Your task to perform on an android device: Empty the shopping cart on amazon. Add "usb-c to usb-a" to the cart on amazon, then select checkout. Image 0: 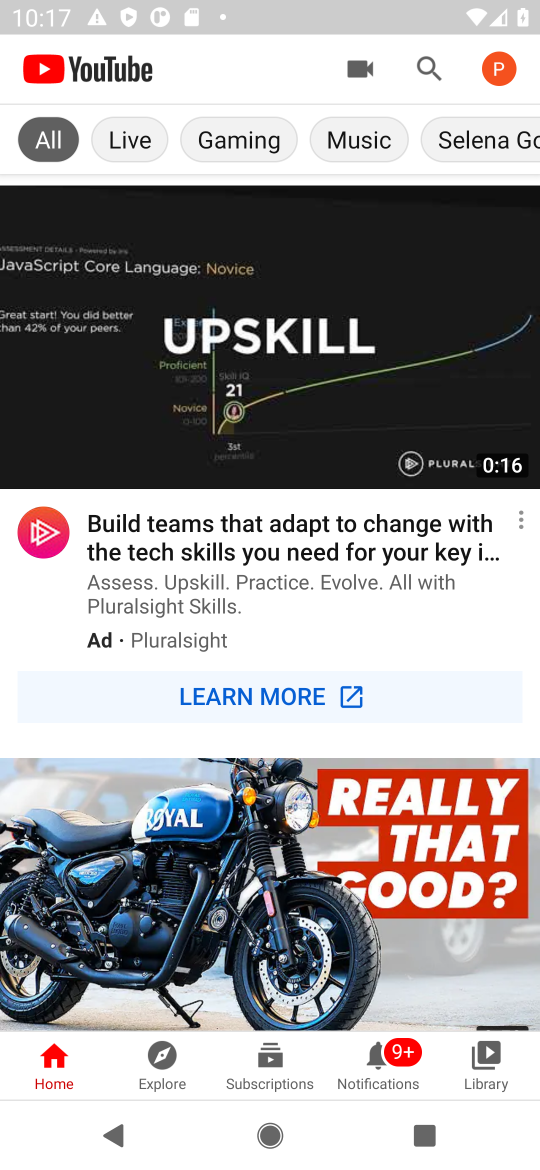
Step 0: press home button
Your task to perform on an android device: Empty the shopping cart on amazon. Add "usb-c to usb-a" to the cart on amazon, then select checkout. Image 1: 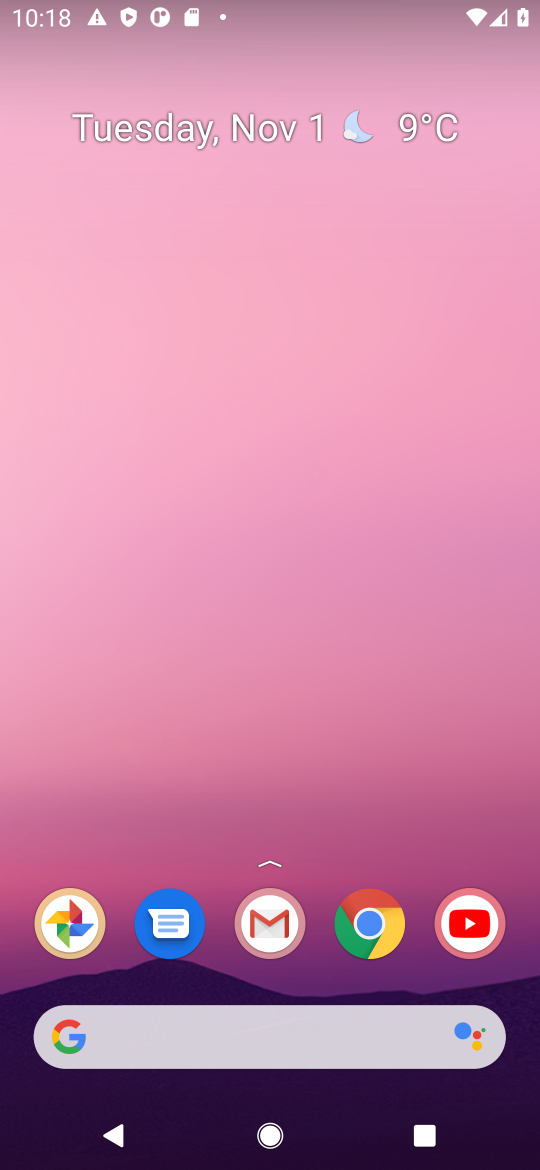
Step 1: drag from (327, 922) to (314, 138)
Your task to perform on an android device: Empty the shopping cart on amazon. Add "usb-c to usb-a" to the cart on amazon, then select checkout. Image 2: 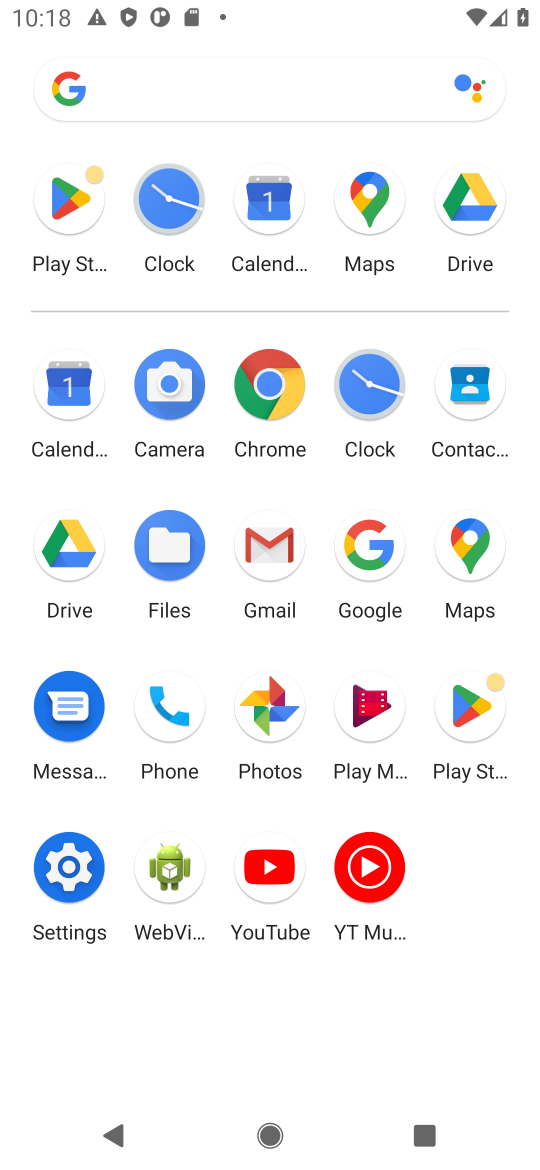
Step 2: click (275, 384)
Your task to perform on an android device: Empty the shopping cart on amazon. Add "usb-c to usb-a" to the cart on amazon, then select checkout. Image 3: 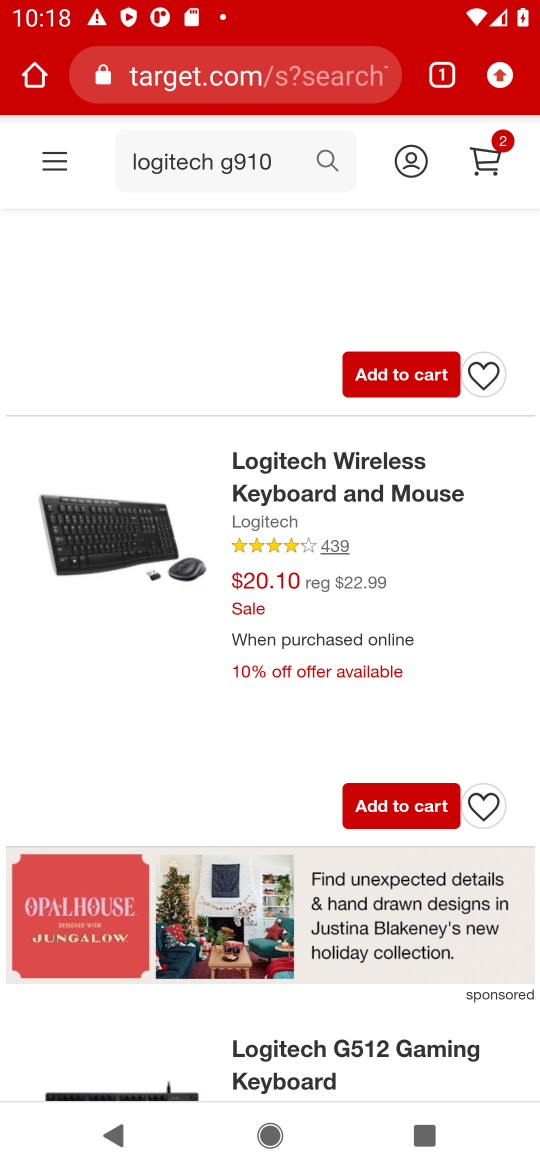
Step 3: click (322, 84)
Your task to perform on an android device: Empty the shopping cart on amazon. Add "usb-c to usb-a" to the cart on amazon, then select checkout. Image 4: 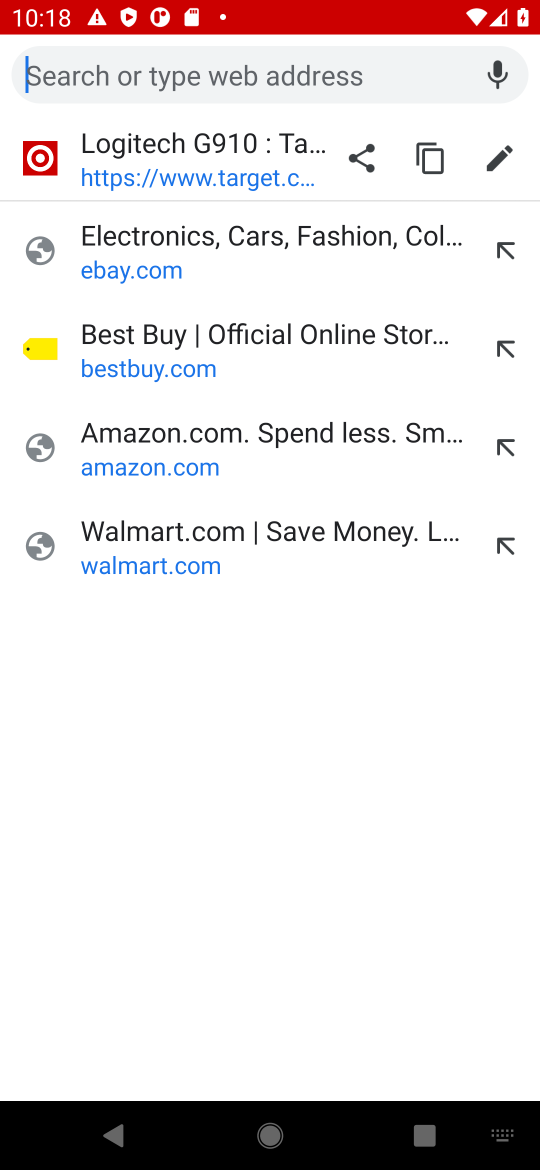
Step 4: type "amazon.com"
Your task to perform on an android device: Empty the shopping cart on amazon. Add "usb-c to usb-a" to the cart on amazon, then select checkout. Image 5: 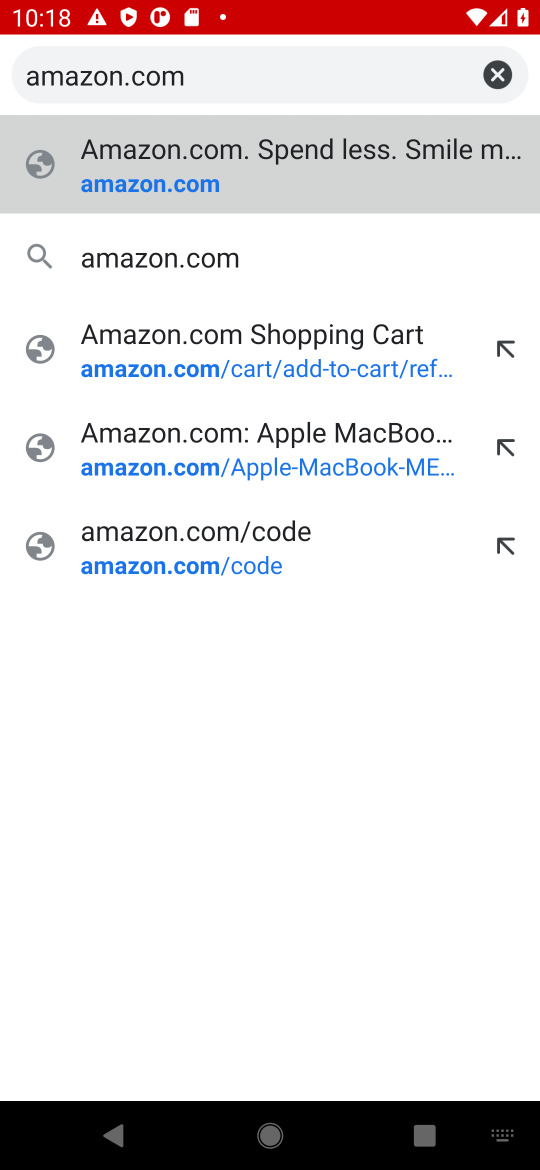
Step 5: press enter
Your task to perform on an android device: Empty the shopping cart on amazon. Add "usb-c to usb-a" to the cart on amazon, then select checkout. Image 6: 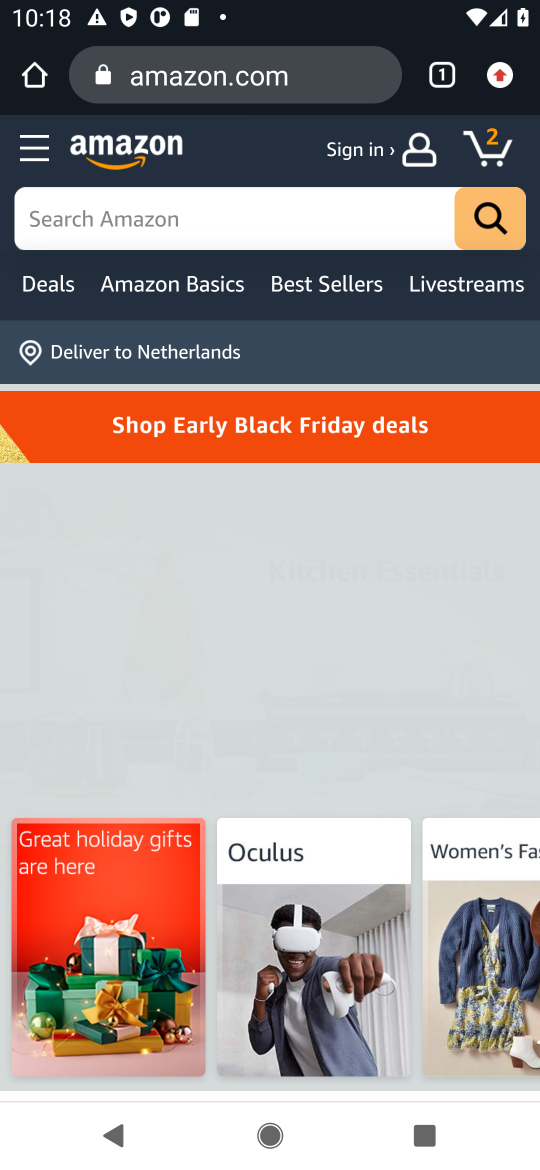
Step 6: click (484, 155)
Your task to perform on an android device: Empty the shopping cart on amazon. Add "usb-c to usb-a" to the cart on amazon, then select checkout. Image 7: 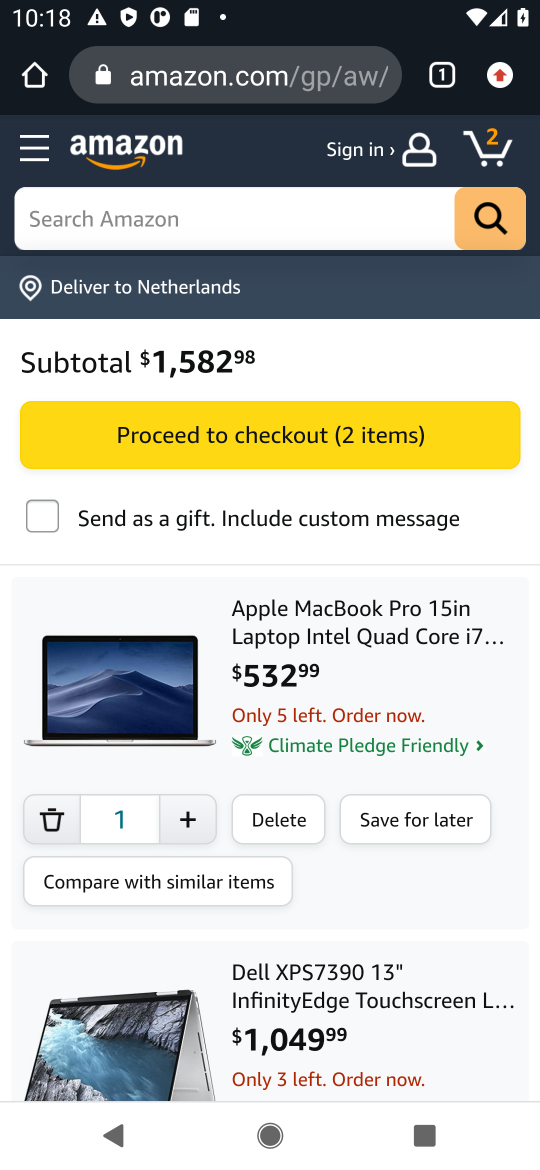
Step 7: click (289, 822)
Your task to perform on an android device: Empty the shopping cart on amazon. Add "usb-c to usb-a" to the cart on amazon, then select checkout. Image 8: 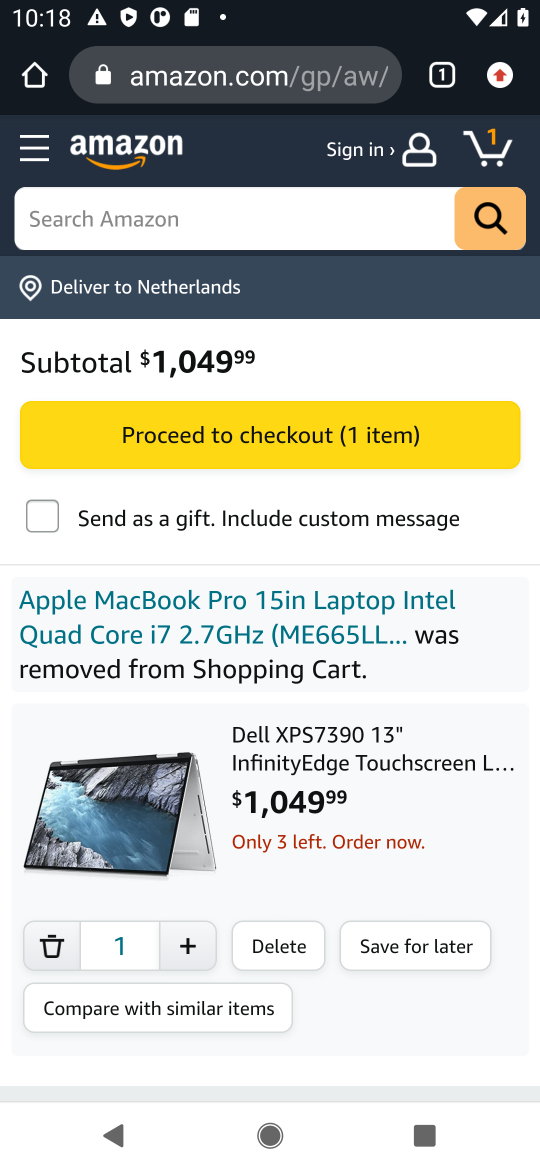
Step 8: click (296, 954)
Your task to perform on an android device: Empty the shopping cart on amazon. Add "usb-c to usb-a" to the cart on amazon, then select checkout. Image 9: 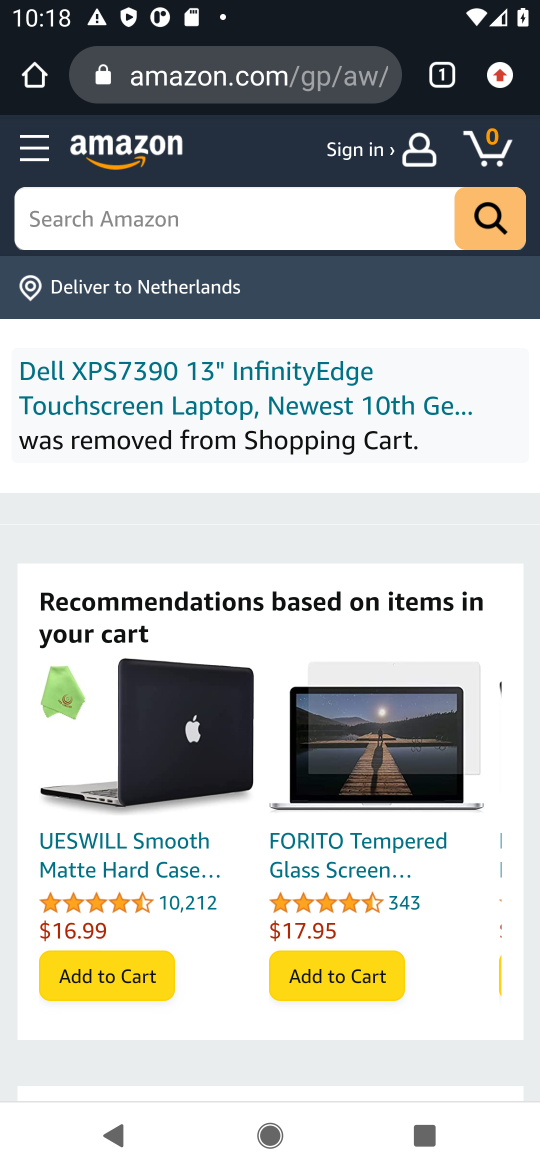
Step 9: click (291, 218)
Your task to perform on an android device: Empty the shopping cart on amazon. Add "usb-c to usb-a" to the cart on amazon, then select checkout. Image 10: 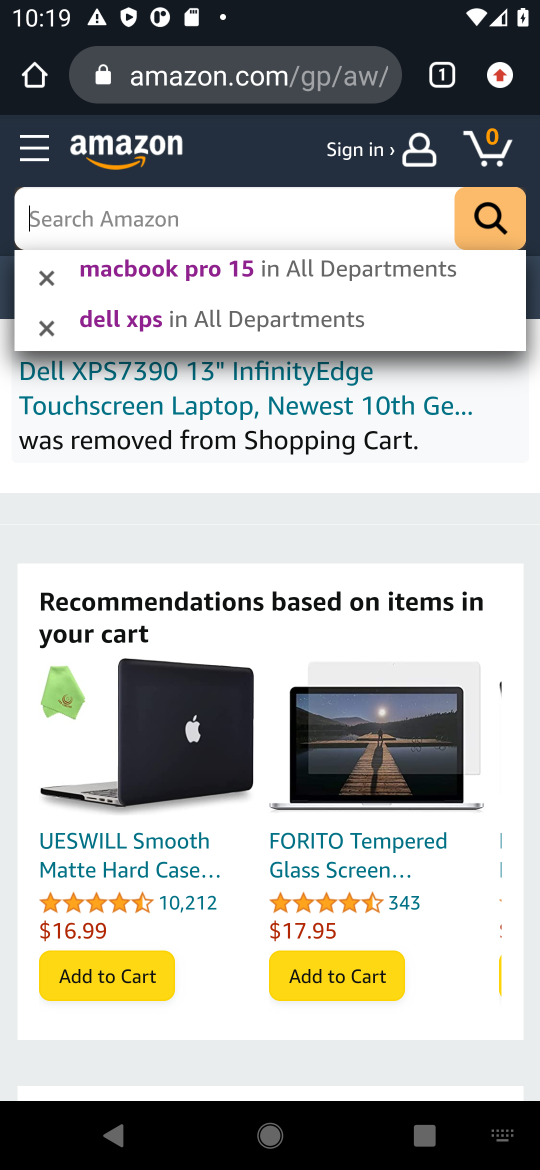
Step 10: type "usb-c to usb-a"
Your task to perform on an android device: Empty the shopping cart on amazon. Add "usb-c to usb-a" to the cart on amazon, then select checkout. Image 11: 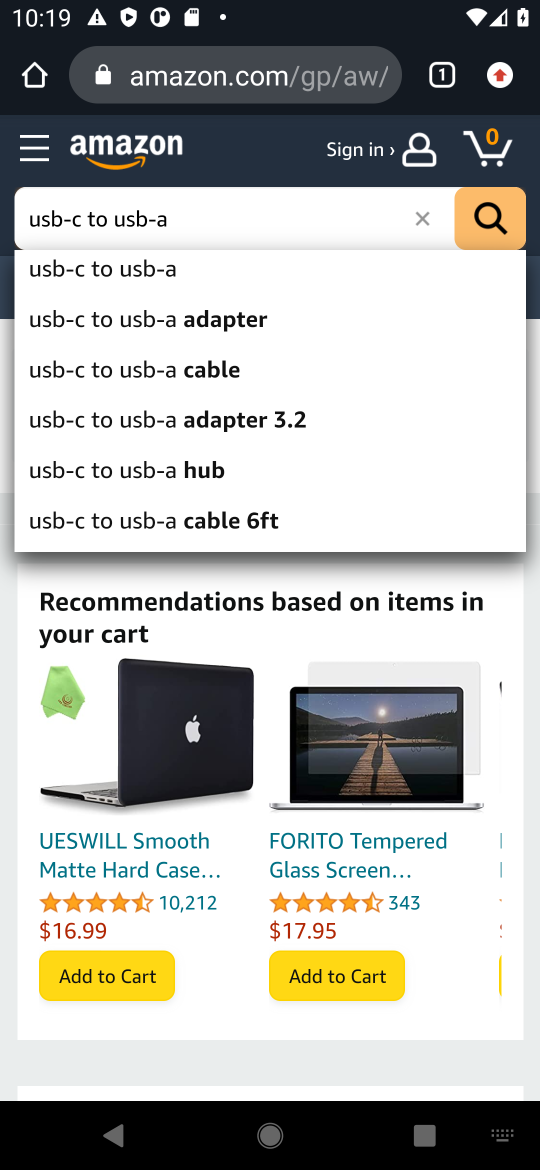
Step 11: press enter
Your task to perform on an android device: Empty the shopping cart on amazon. Add "usb-c to usb-a" to the cart on amazon, then select checkout. Image 12: 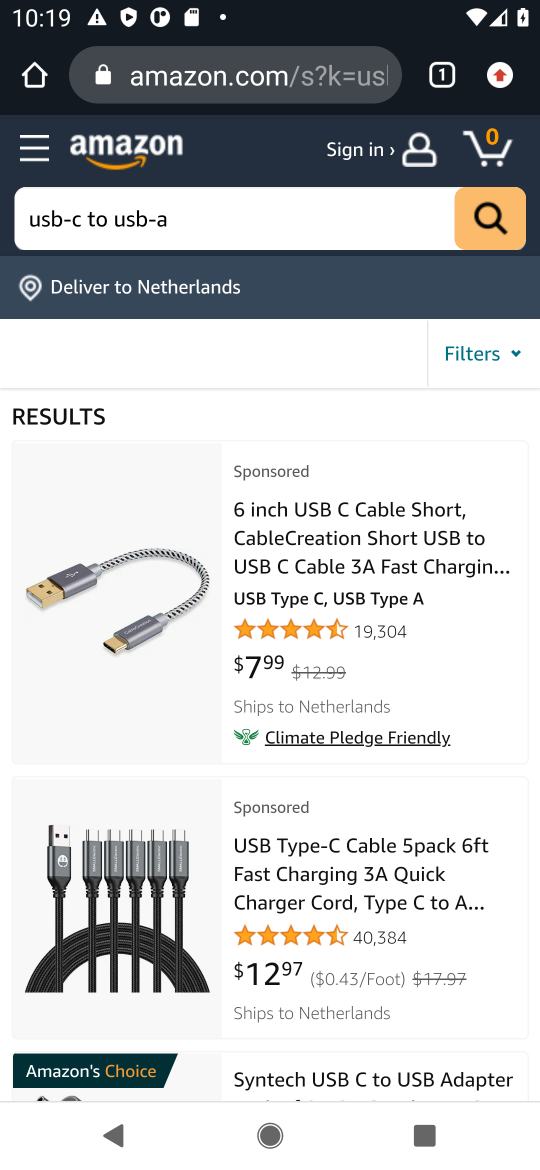
Step 12: drag from (292, 984) to (289, 422)
Your task to perform on an android device: Empty the shopping cart on amazon. Add "usb-c to usb-a" to the cart on amazon, then select checkout. Image 13: 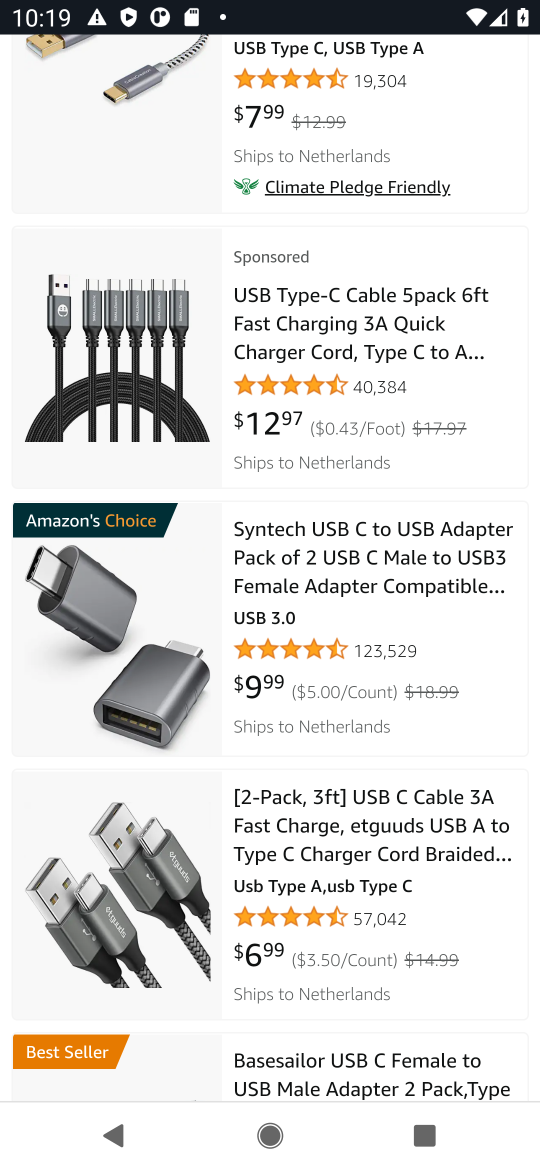
Step 13: drag from (295, 113) to (324, 599)
Your task to perform on an android device: Empty the shopping cart on amazon. Add "usb-c to usb-a" to the cart on amazon, then select checkout. Image 14: 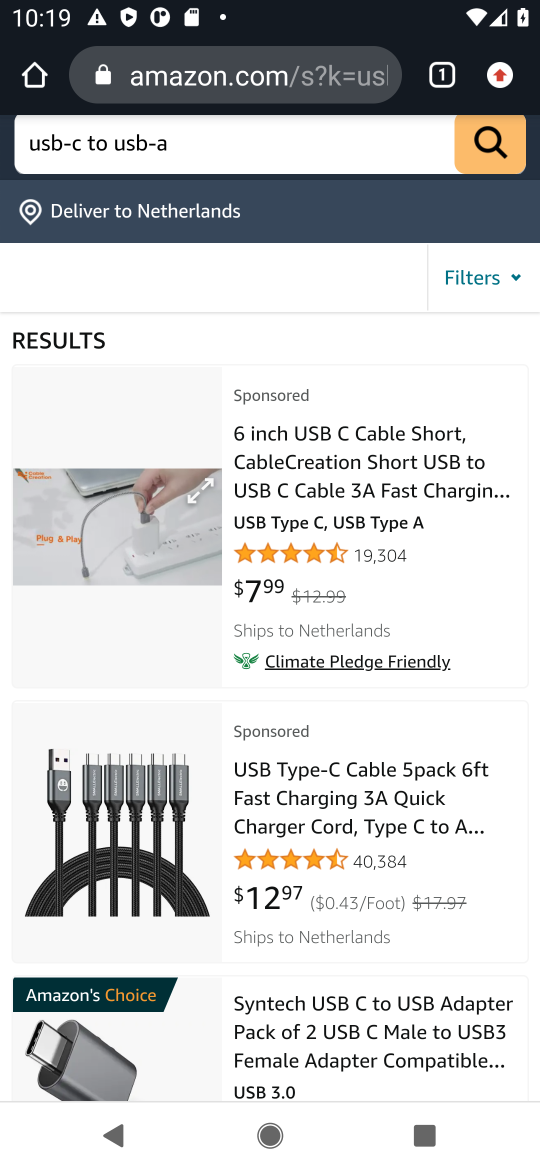
Step 14: drag from (300, 955) to (364, 647)
Your task to perform on an android device: Empty the shopping cart on amazon. Add "usb-c to usb-a" to the cart on amazon, then select checkout. Image 15: 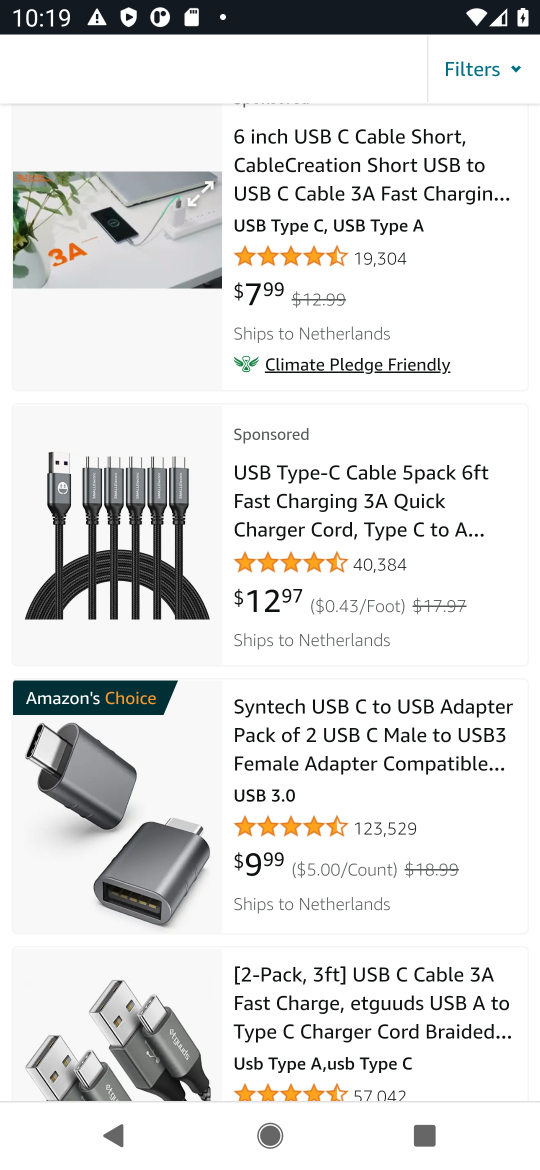
Step 15: drag from (289, 747) to (314, 546)
Your task to perform on an android device: Empty the shopping cart on amazon. Add "usb-c to usb-a" to the cart on amazon, then select checkout. Image 16: 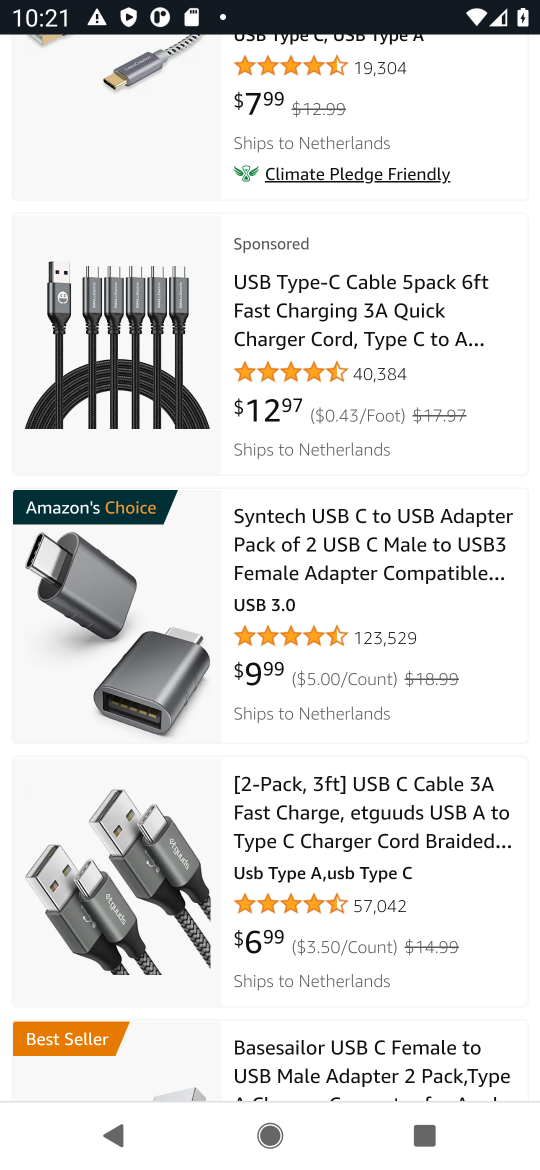
Step 16: drag from (290, 291) to (337, 662)
Your task to perform on an android device: Empty the shopping cart on amazon. Add "usb-c to usb-a" to the cart on amazon, then select checkout. Image 17: 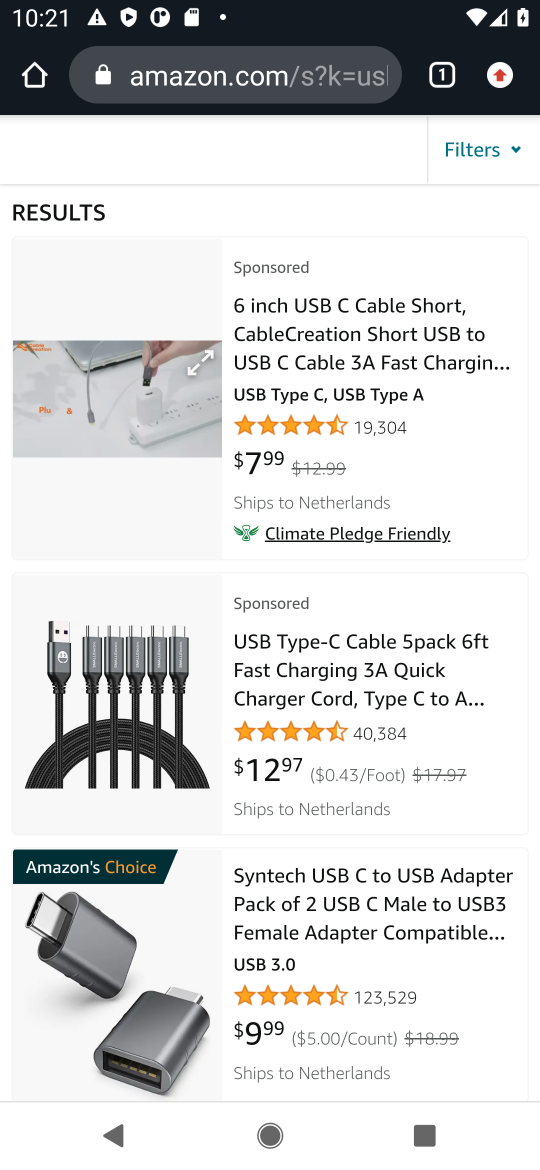
Step 17: drag from (308, 682) to (314, 257)
Your task to perform on an android device: Empty the shopping cart on amazon. Add "usb-c to usb-a" to the cart on amazon, then select checkout. Image 18: 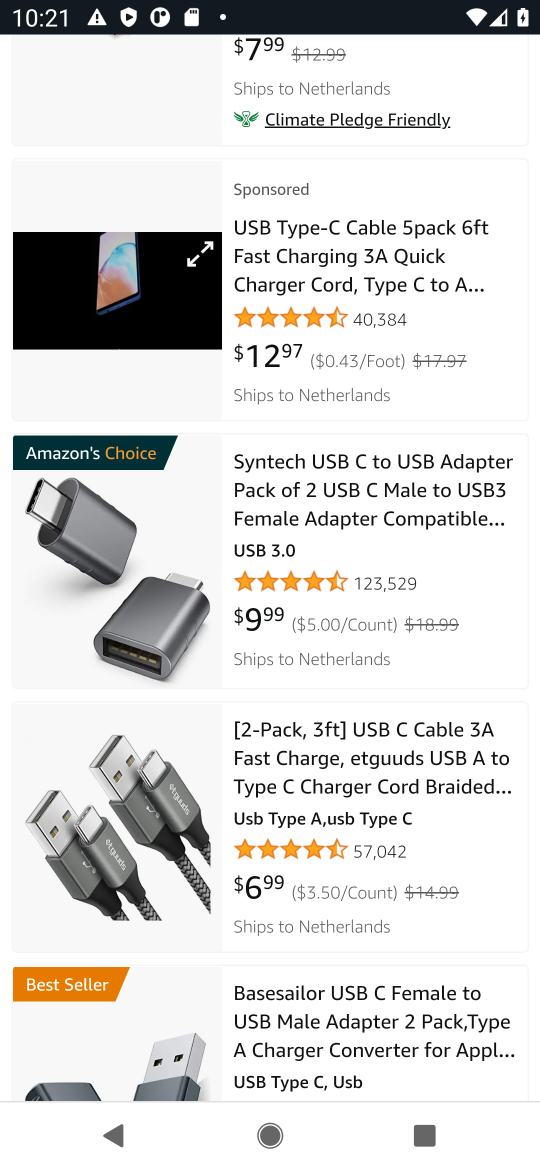
Step 18: click (365, 516)
Your task to perform on an android device: Empty the shopping cart on amazon. Add "usb-c to usb-a" to the cart on amazon, then select checkout. Image 19: 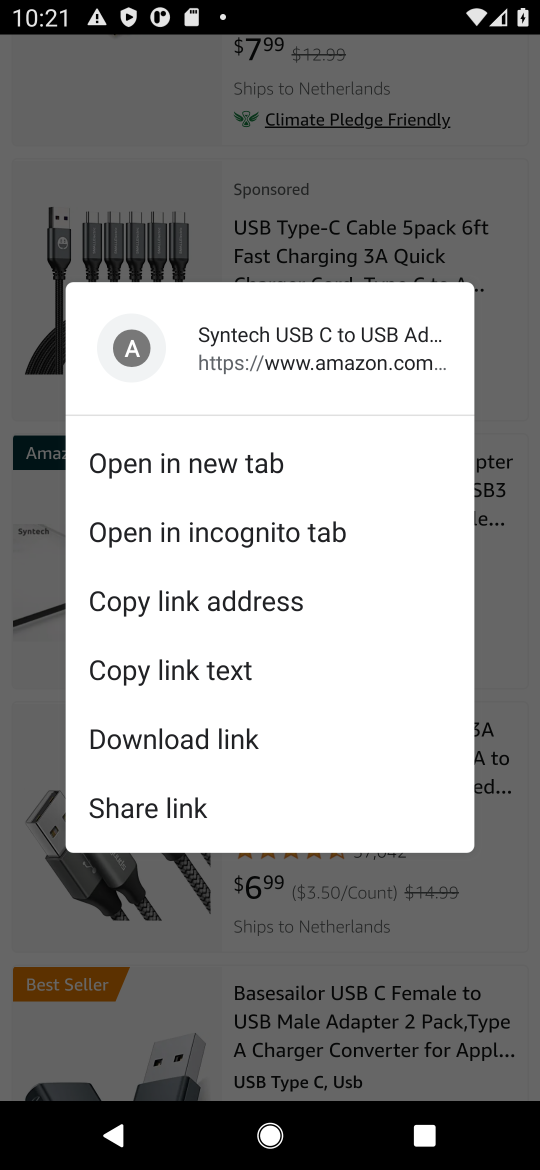
Step 19: click (325, 964)
Your task to perform on an android device: Empty the shopping cart on amazon. Add "usb-c to usb-a" to the cart on amazon, then select checkout. Image 20: 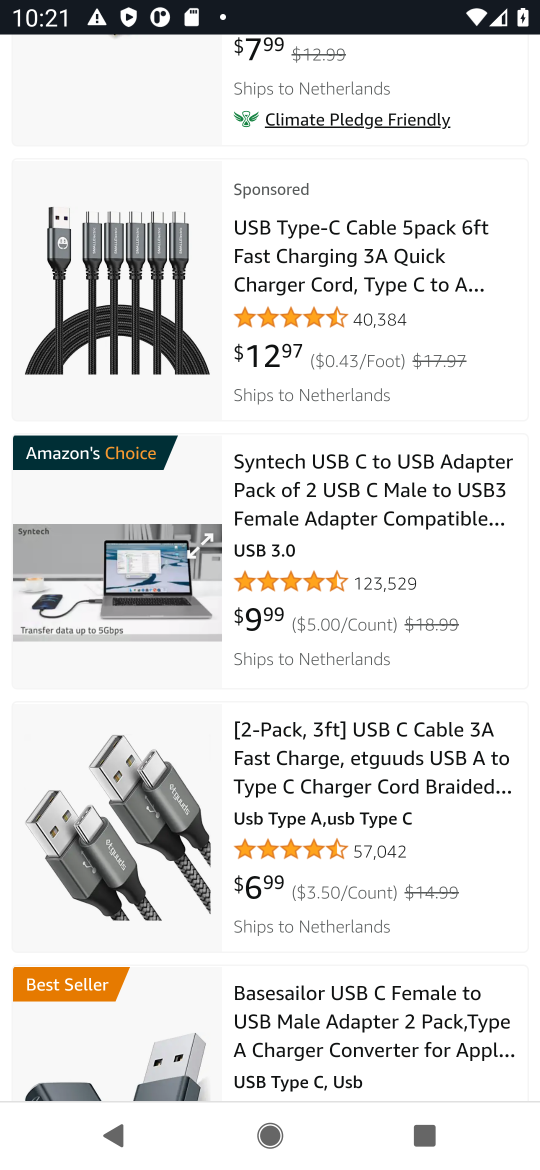
Step 20: click (317, 511)
Your task to perform on an android device: Empty the shopping cart on amazon. Add "usb-c to usb-a" to the cart on amazon, then select checkout. Image 21: 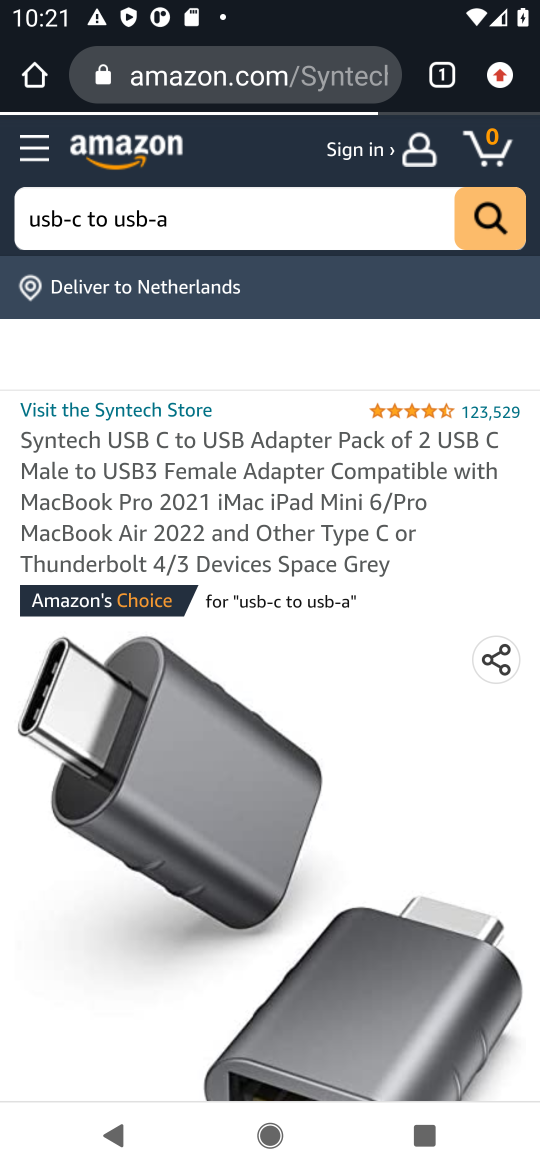
Step 21: drag from (337, 910) to (397, 109)
Your task to perform on an android device: Empty the shopping cart on amazon. Add "usb-c to usb-a" to the cart on amazon, then select checkout. Image 22: 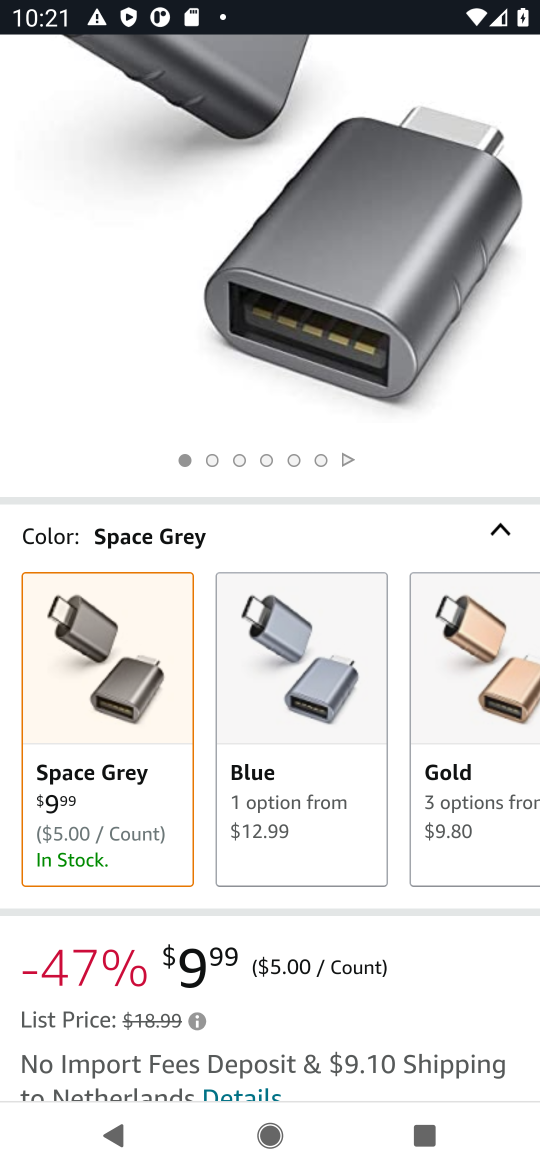
Step 22: drag from (356, 883) to (321, 172)
Your task to perform on an android device: Empty the shopping cart on amazon. Add "usb-c to usb-a" to the cart on amazon, then select checkout. Image 23: 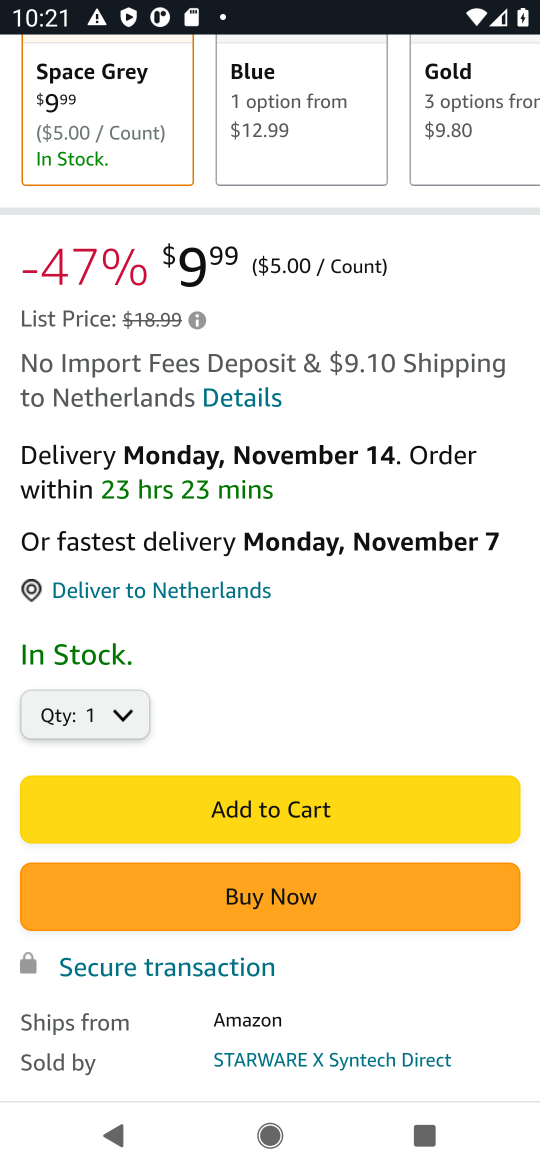
Step 23: click (392, 811)
Your task to perform on an android device: Empty the shopping cart on amazon. Add "usb-c to usb-a" to the cart on amazon, then select checkout. Image 24: 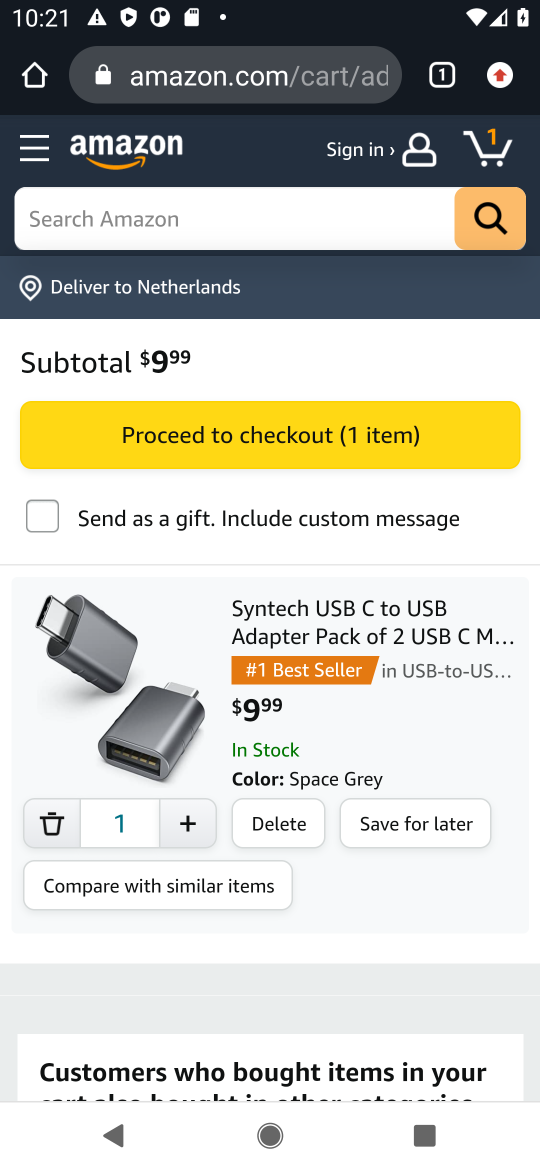
Step 24: click (326, 434)
Your task to perform on an android device: Empty the shopping cart on amazon. Add "usb-c to usb-a" to the cart on amazon, then select checkout. Image 25: 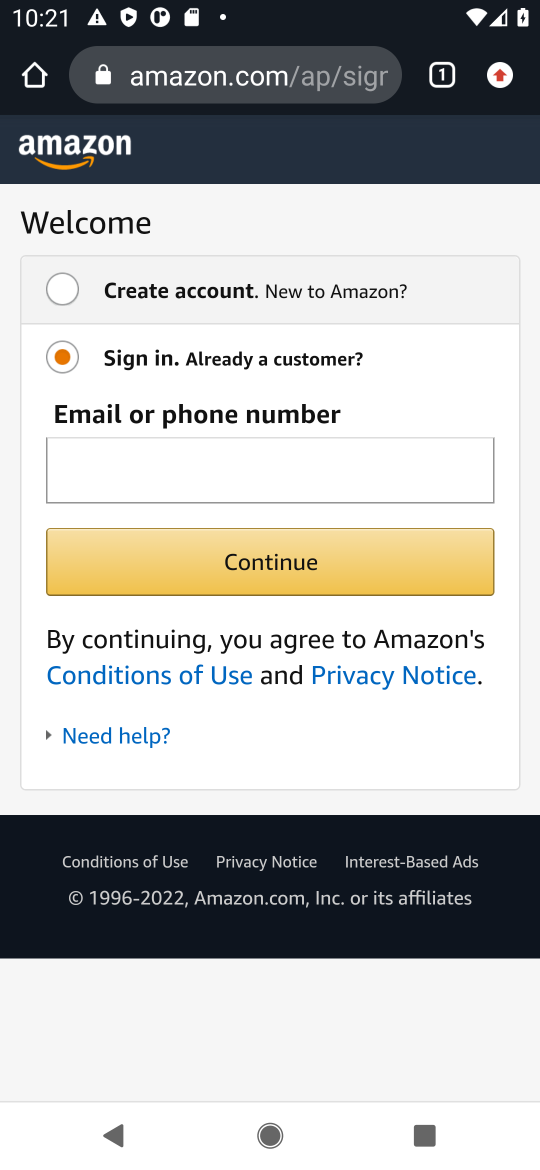
Step 25: task complete